Your task to perform on an android device: clear history in the chrome app Image 0: 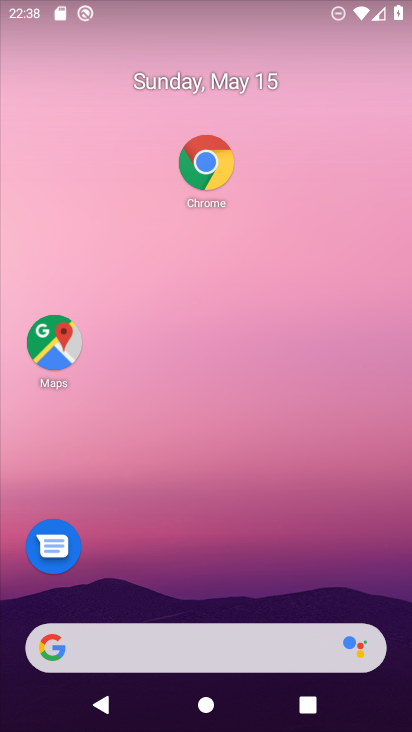
Step 0: drag from (290, 559) to (309, 167)
Your task to perform on an android device: clear history in the chrome app Image 1: 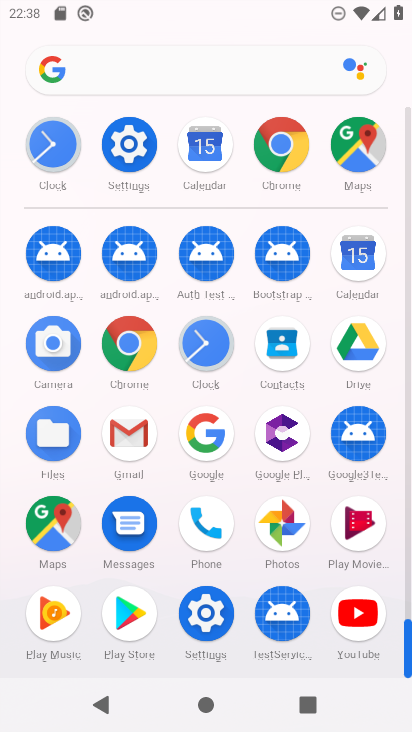
Step 1: click (282, 133)
Your task to perform on an android device: clear history in the chrome app Image 2: 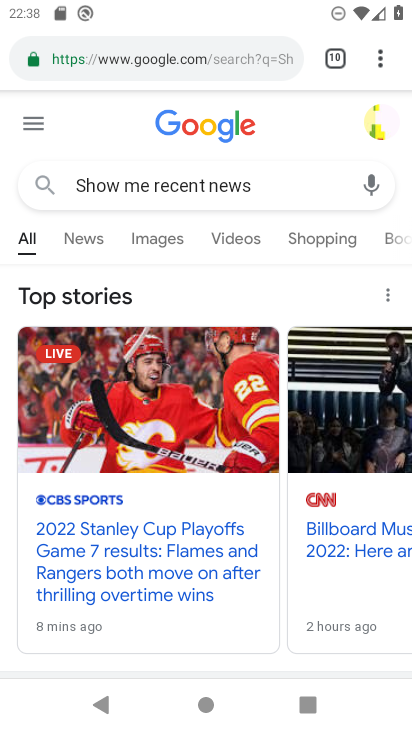
Step 2: click (374, 55)
Your task to perform on an android device: clear history in the chrome app Image 3: 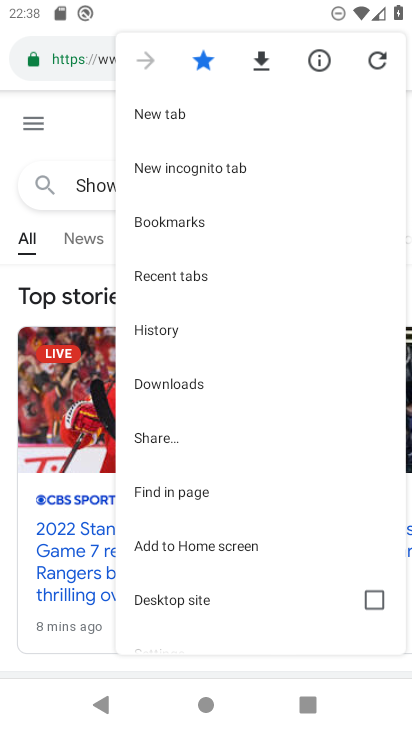
Step 3: click (181, 224)
Your task to perform on an android device: clear history in the chrome app Image 4: 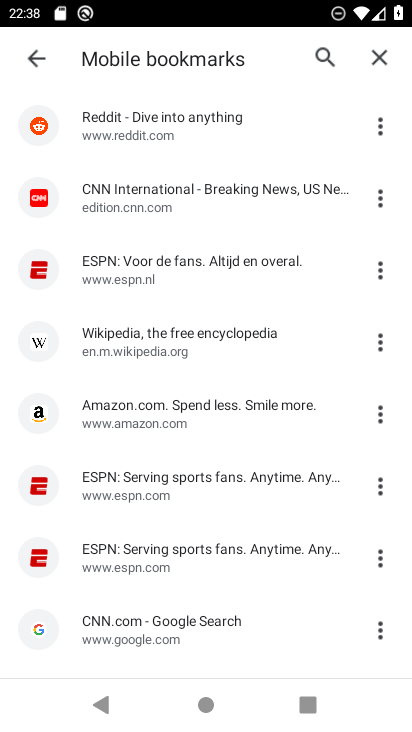
Step 4: drag from (194, 139) to (243, 622)
Your task to perform on an android device: clear history in the chrome app Image 5: 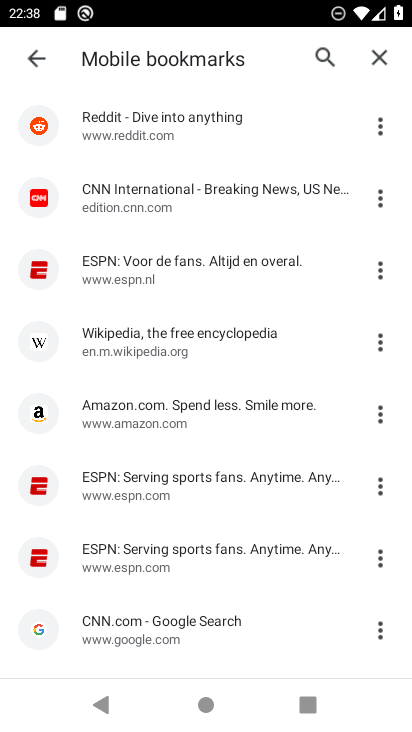
Step 5: click (40, 58)
Your task to perform on an android device: clear history in the chrome app Image 6: 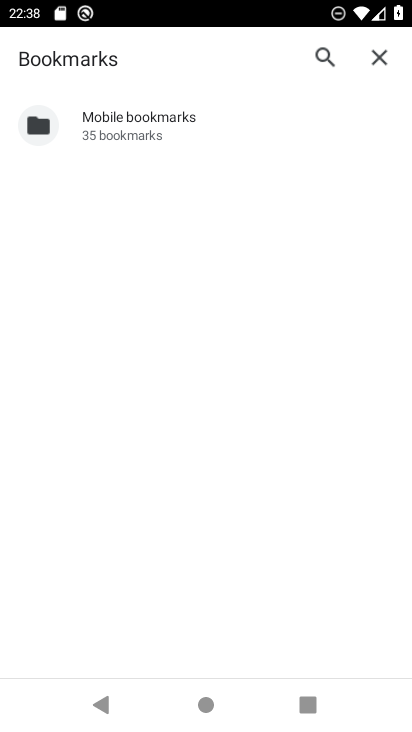
Step 6: click (364, 56)
Your task to perform on an android device: clear history in the chrome app Image 7: 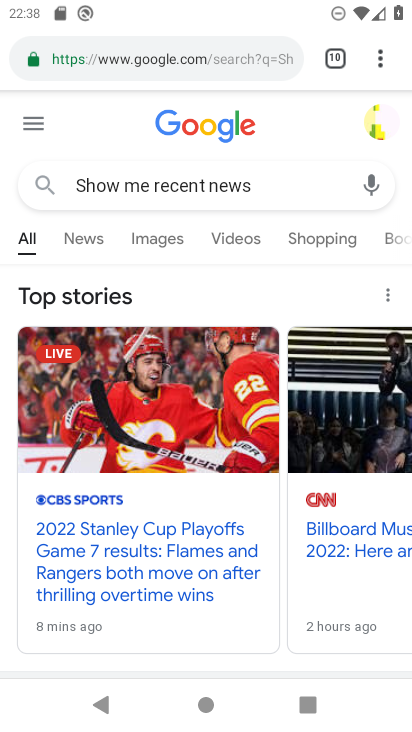
Step 7: click (375, 55)
Your task to perform on an android device: clear history in the chrome app Image 8: 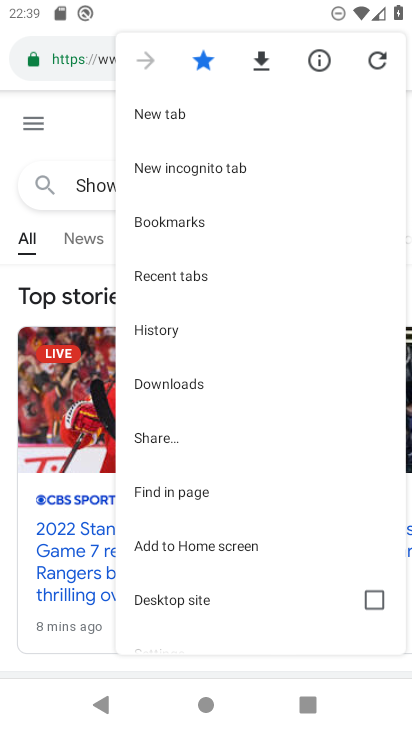
Step 8: click (185, 326)
Your task to perform on an android device: clear history in the chrome app Image 9: 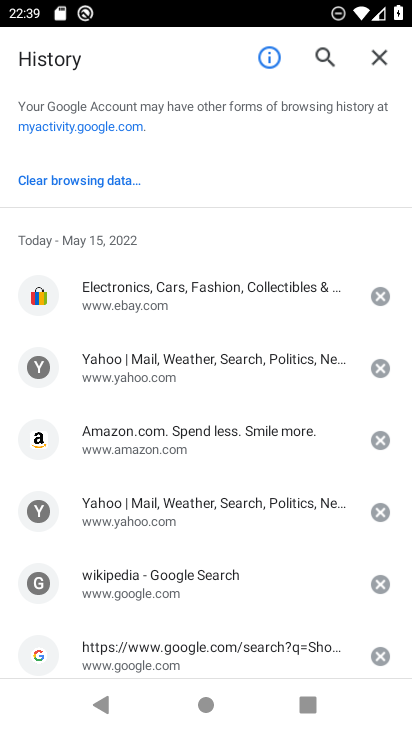
Step 9: click (84, 183)
Your task to perform on an android device: clear history in the chrome app Image 10: 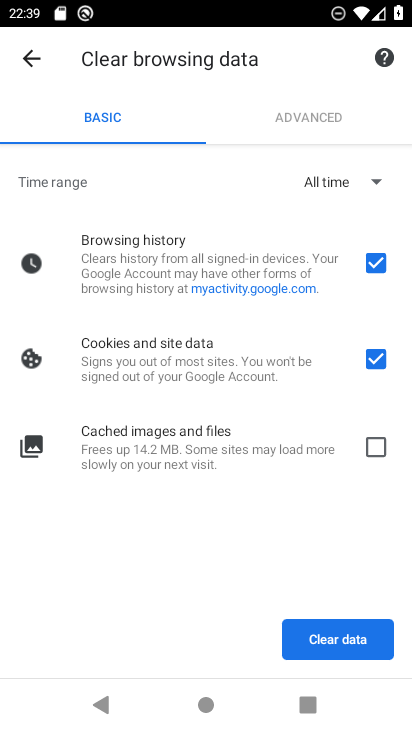
Step 10: click (366, 637)
Your task to perform on an android device: clear history in the chrome app Image 11: 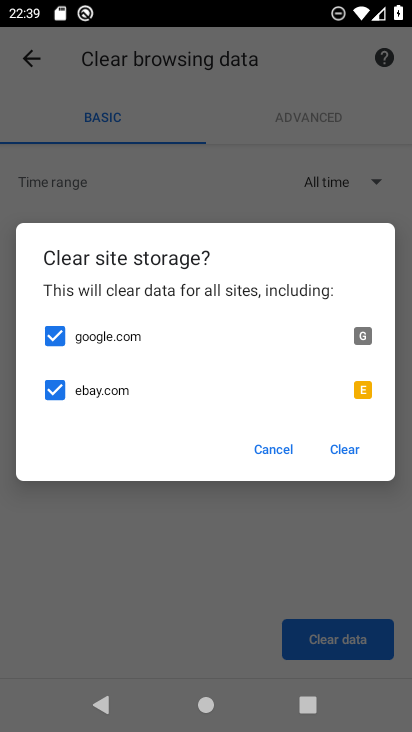
Step 11: click (335, 443)
Your task to perform on an android device: clear history in the chrome app Image 12: 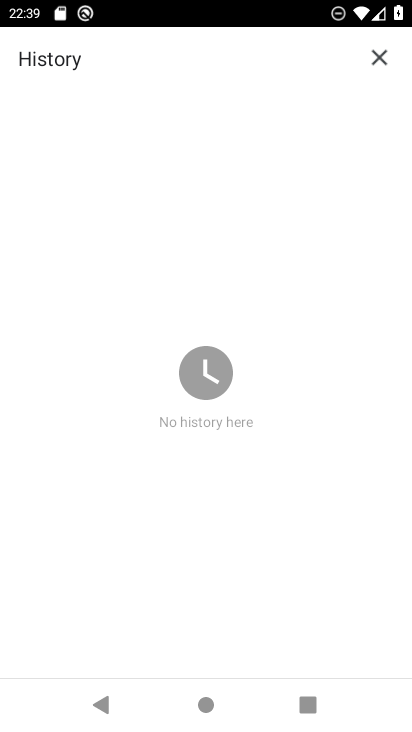
Step 12: task complete